Your task to perform on an android device: open app "Facebook Messenger" (install if not already installed) Image 0: 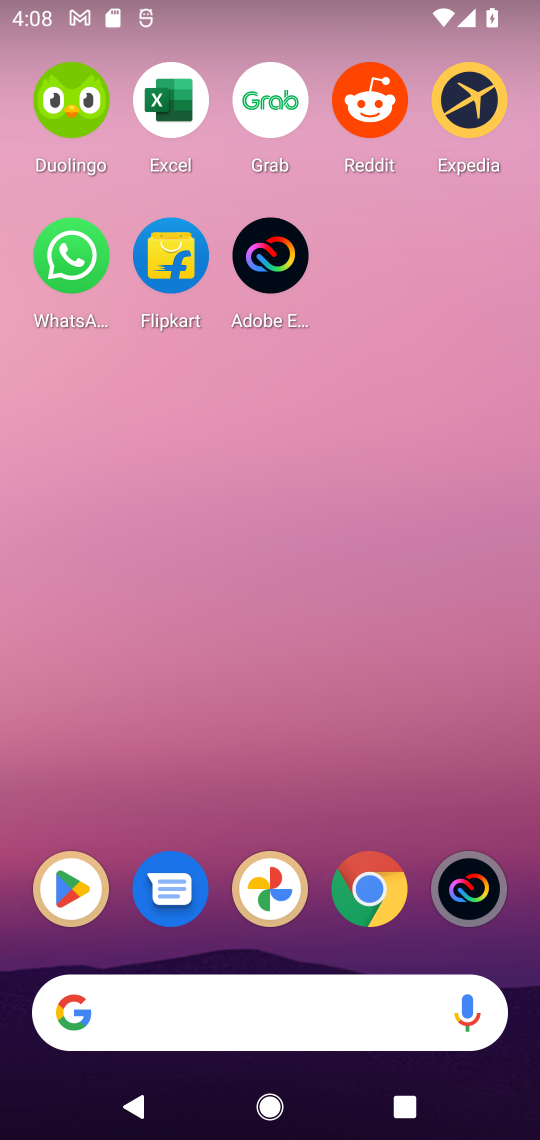
Step 0: press home button
Your task to perform on an android device: open app "Facebook Messenger" (install if not already installed) Image 1: 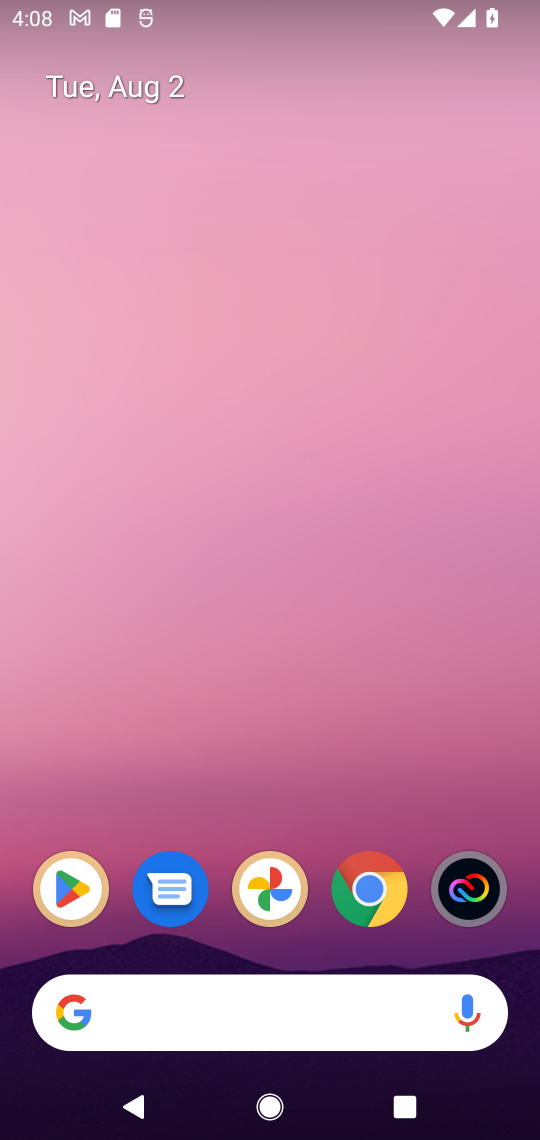
Step 1: drag from (433, 780) to (415, 96)
Your task to perform on an android device: open app "Facebook Messenger" (install if not already installed) Image 2: 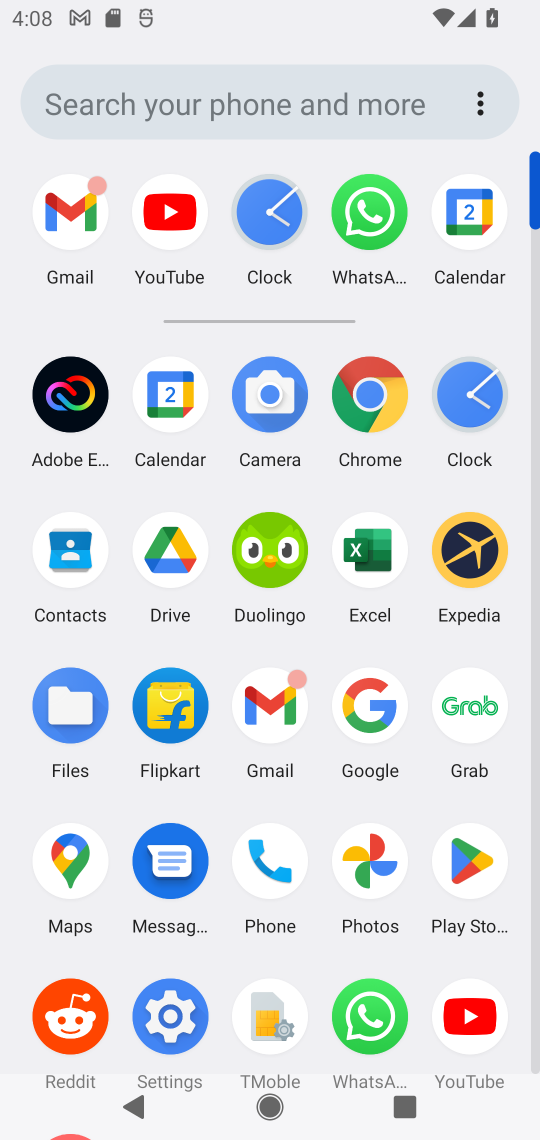
Step 2: click (480, 858)
Your task to perform on an android device: open app "Facebook Messenger" (install if not already installed) Image 3: 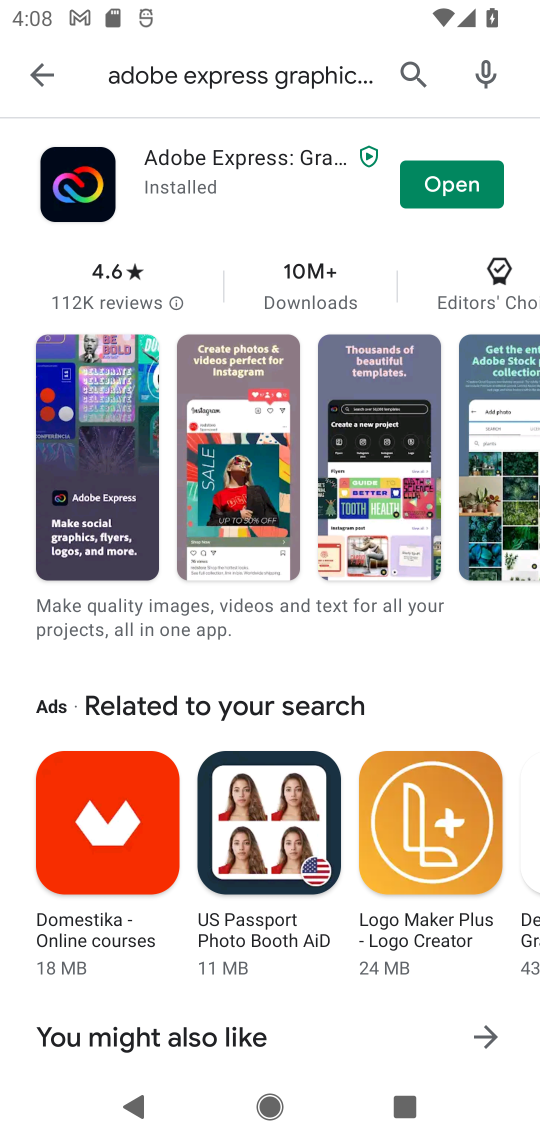
Step 3: click (411, 129)
Your task to perform on an android device: open app "Facebook Messenger" (install if not already installed) Image 4: 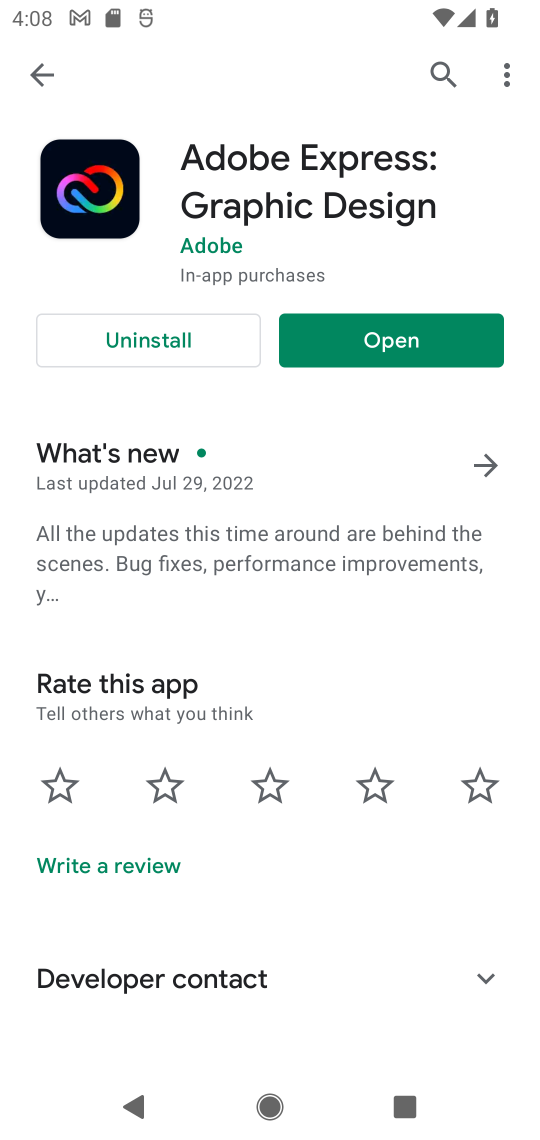
Step 4: click (435, 72)
Your task to perform on an android device: open app "Facebook Messenger" (install if not already installed) Image 5: 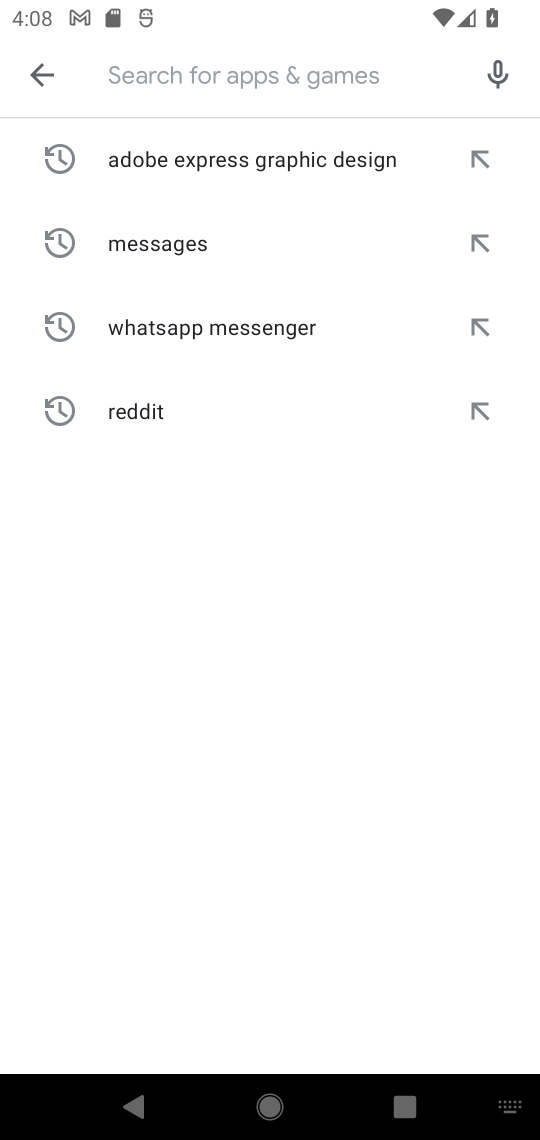
Step 5: type "facebook messenger"
Your task to perform on an android device: open app "Facebook Messenger" (install if not already installed) Image 6: 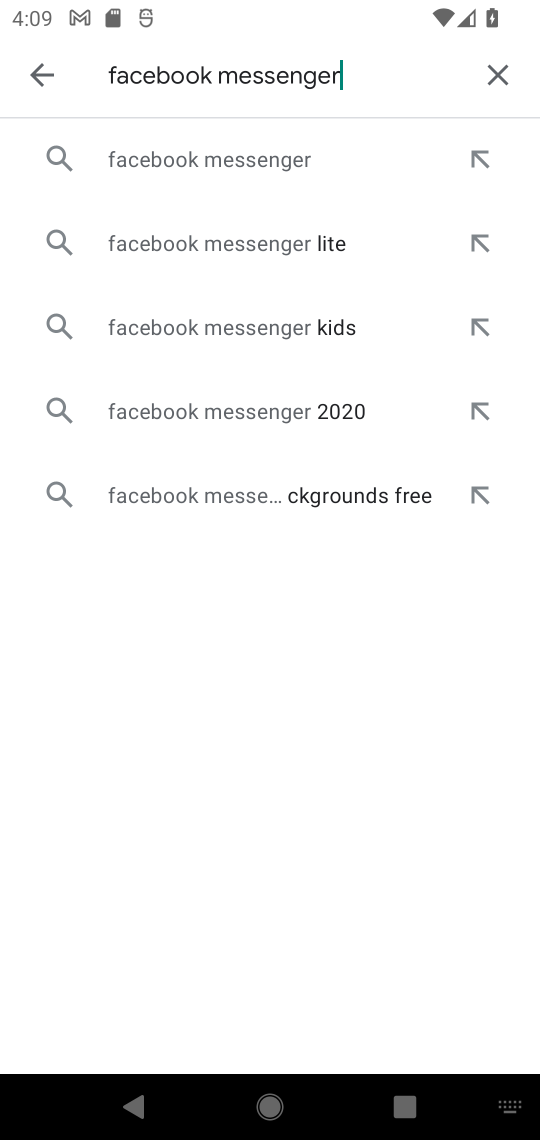
Step 6: click (272, 151)
Your task to perform on an android device: open app "Facebook Messenger" (install if not already installed) Image 7: 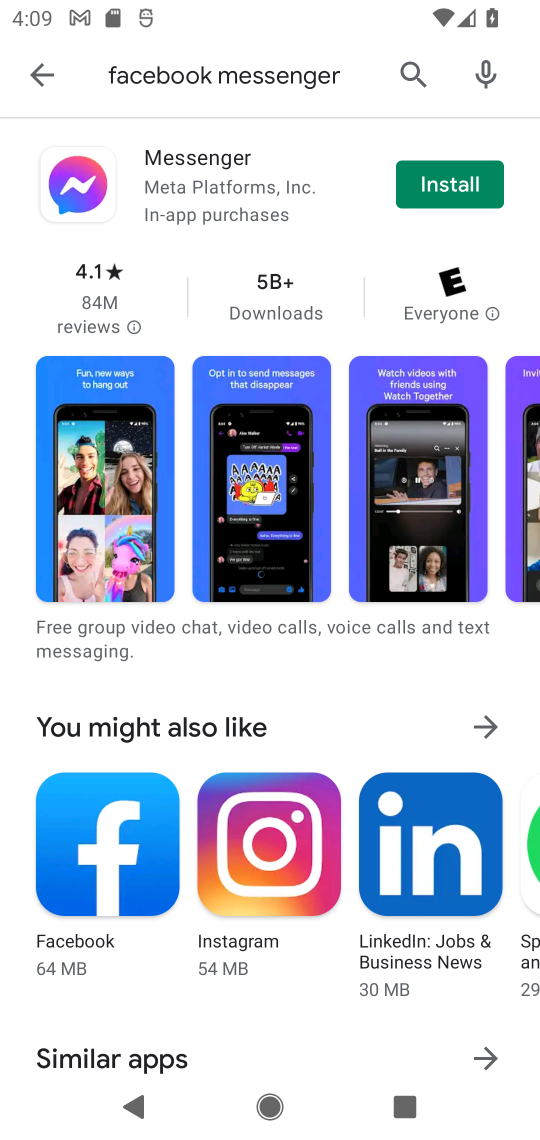
Step 7: click (456, 176)
Your task to perform on an android device: open app "Facebook Messenger" (install if not already installed) Image 8: 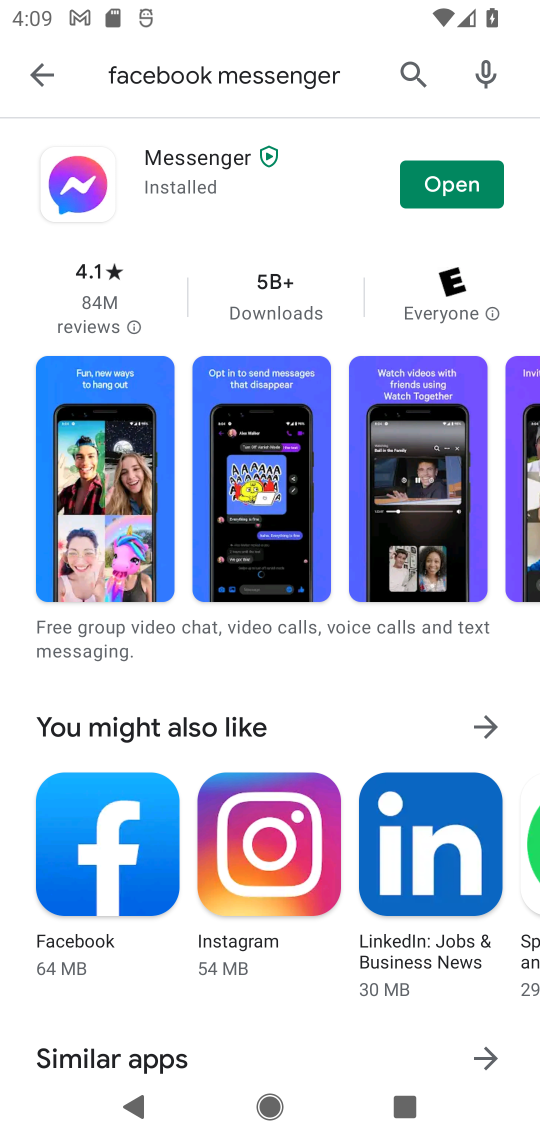
Step 8: click (448, 183)
Your task to perform on an android device: open app "Facebook Messenger" (install if not already installed) Image 9: 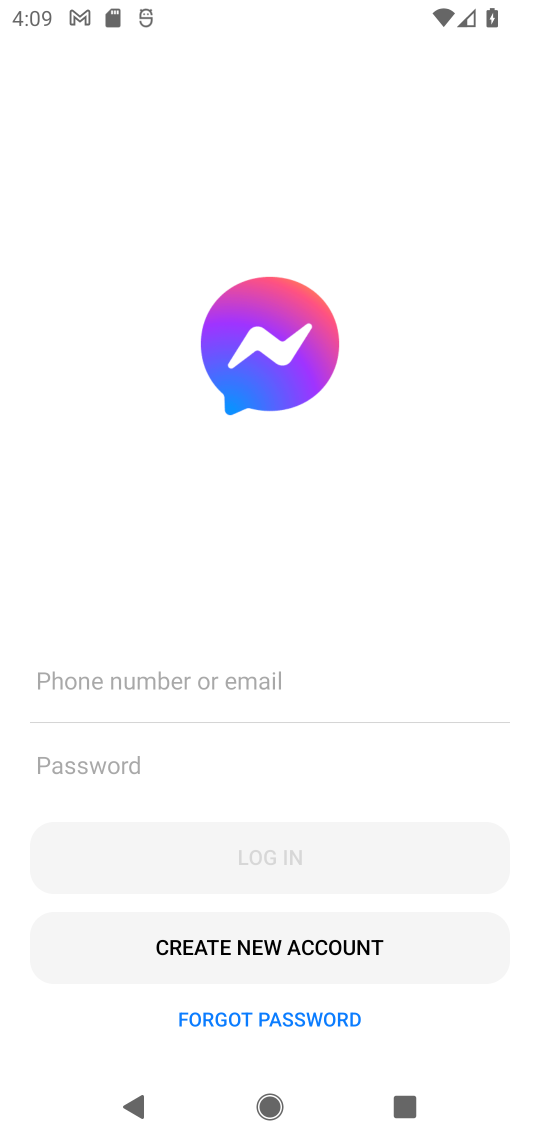
Step 9: task complete